Your task to perform on an android device: Go to calendar. Show me events next week Image 0: 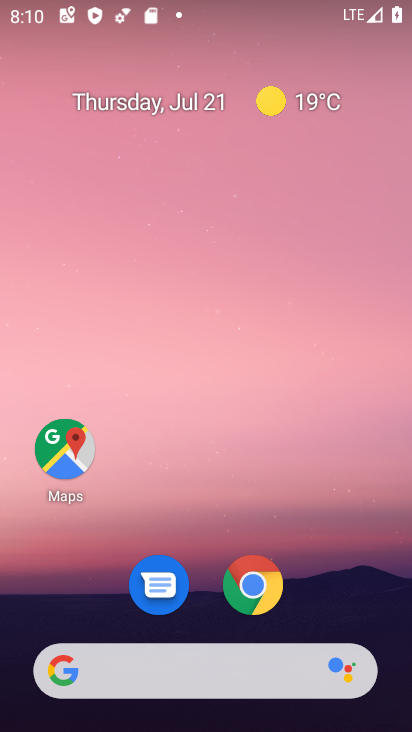
Step 0: drag from (303, 576) to (215, 120)
Your task to perform on an android device: Go to calendar. Show me events next week Image 1: 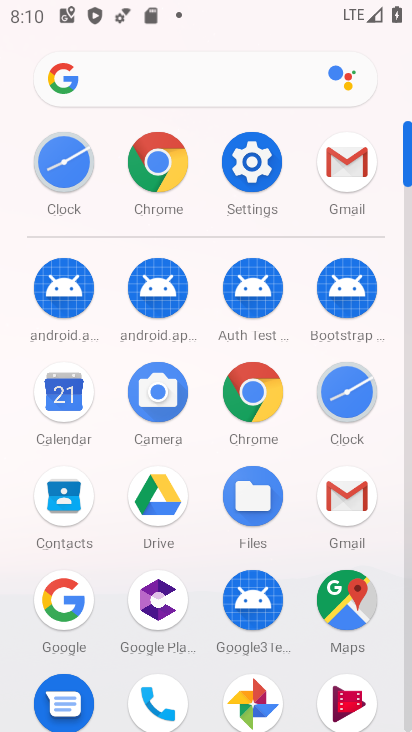
Step 1: click (68, 399)
Your task to perform on an android device: Go to calendar. Show me events next week Image 2: 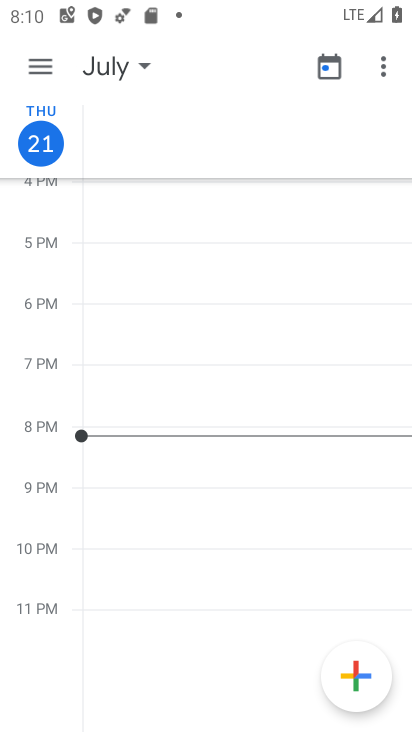
Step 2: drag from (161, 204) to (224, 696)
Your task to perform on an android device: Go to calendar. Show me events next week Image 3: 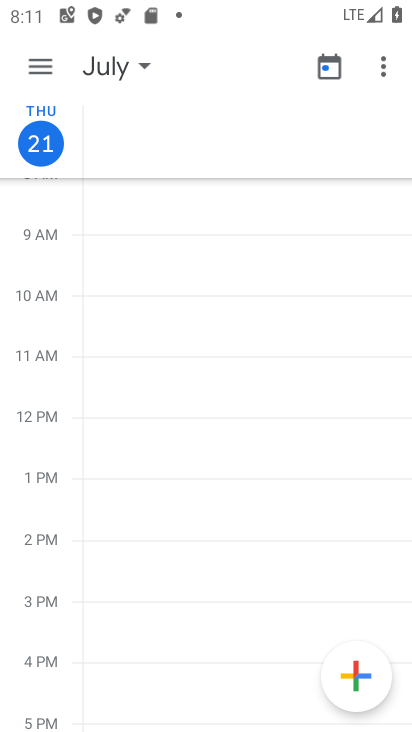
Step 3: drag from (200, 216) to (263, 677)
Your task to perform on an android device: Go to calendar. Show me events next week Image 4: 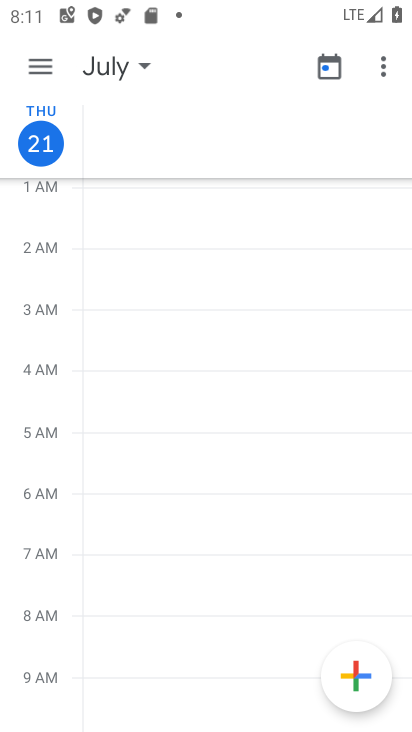
Step 4: drag from (228, 253) to (276, 574)
Your task to perform on an android device: Go to calendar. Show me events next week Image 5: 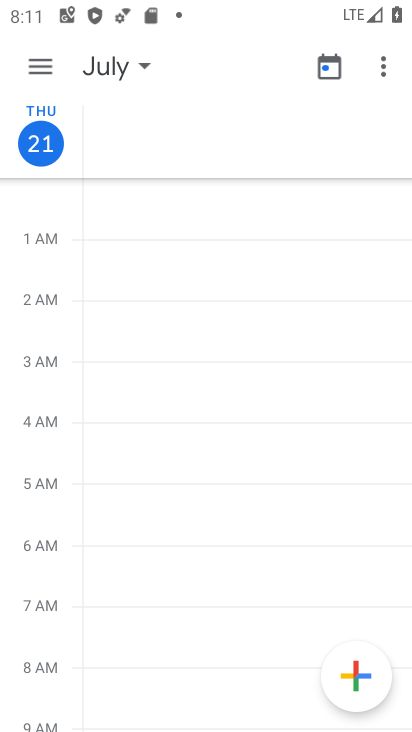
Step 5: click (30, 63)
Your task to perform on an android device: Go to calendar. Show me events next week Image 6: 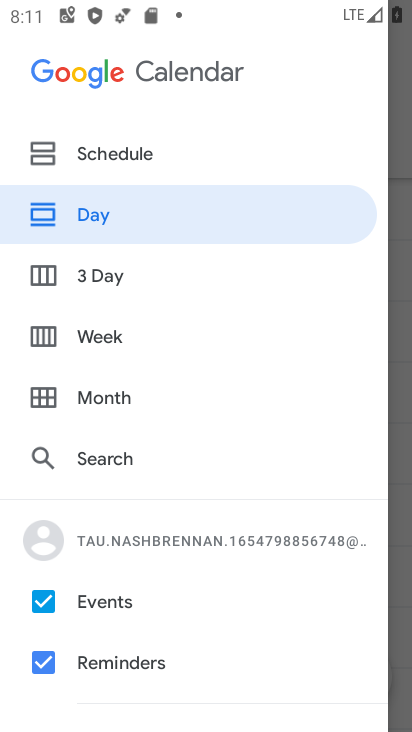
Step 6: click (45, 338)
Your task to perform on an android device: Go to calendar. Show me events next week Image 7: 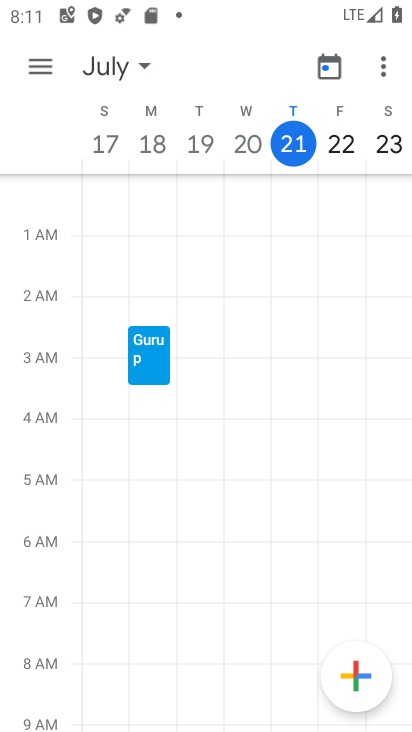
Step 7: task complete